Your task to perform on an android device: open app "Messenger Lite" (install if not already installed), go to login, and select forgot password Image 0: 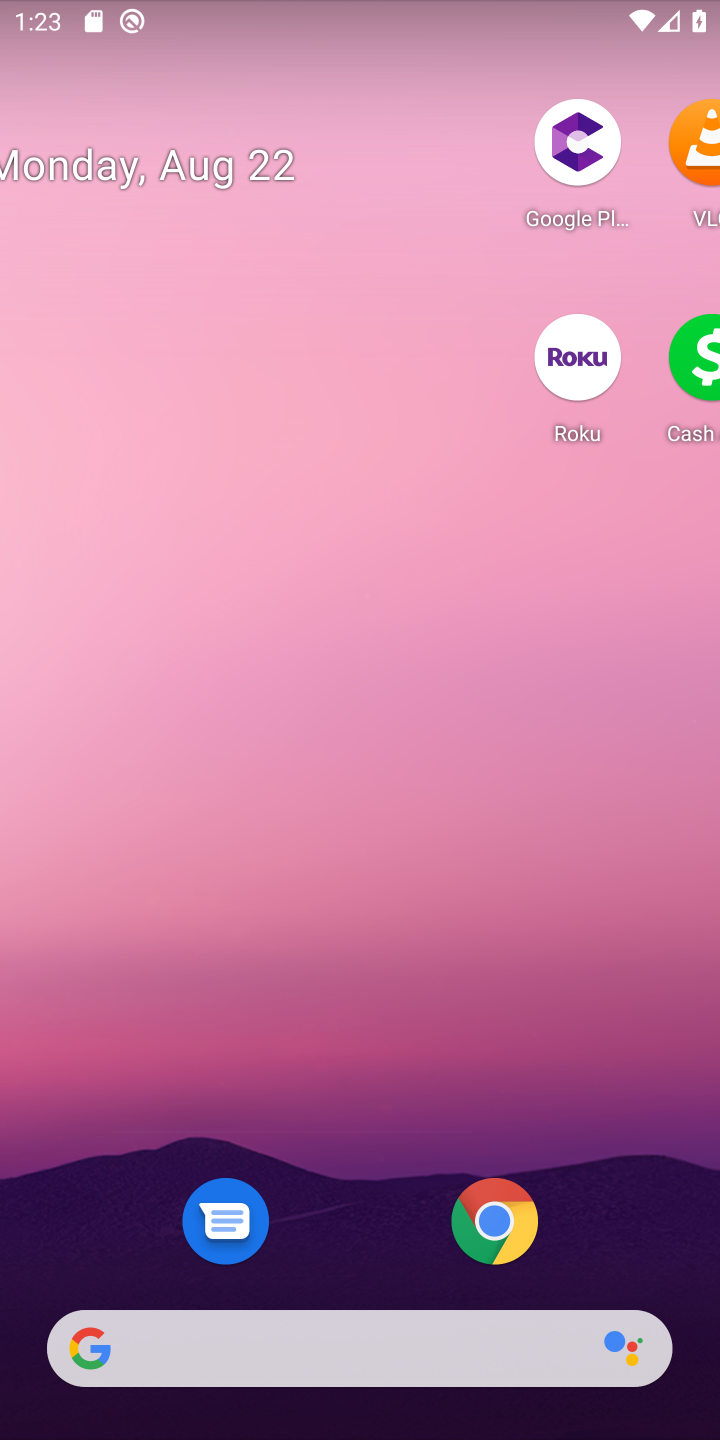
Step 0: press home button
Your task to perform on an android device: open app "Messenger Lite" (install if not already installed), go to login, and select forgot password Image 1: 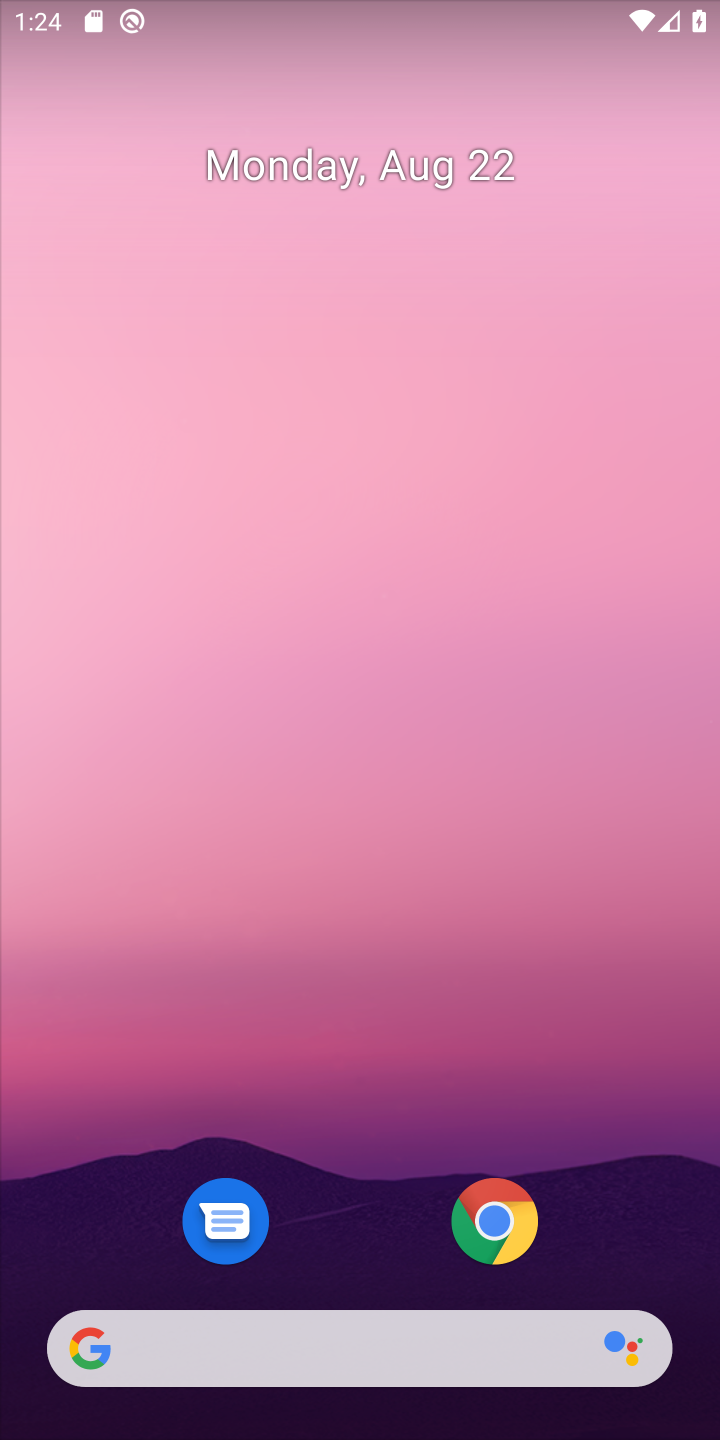
Step 1: drag from (359, 1273) to (422, 122)
Your task to perform on an android device: open app "Messenger Lite" (install if not already installed), go to login, and select forgot password Image 2: 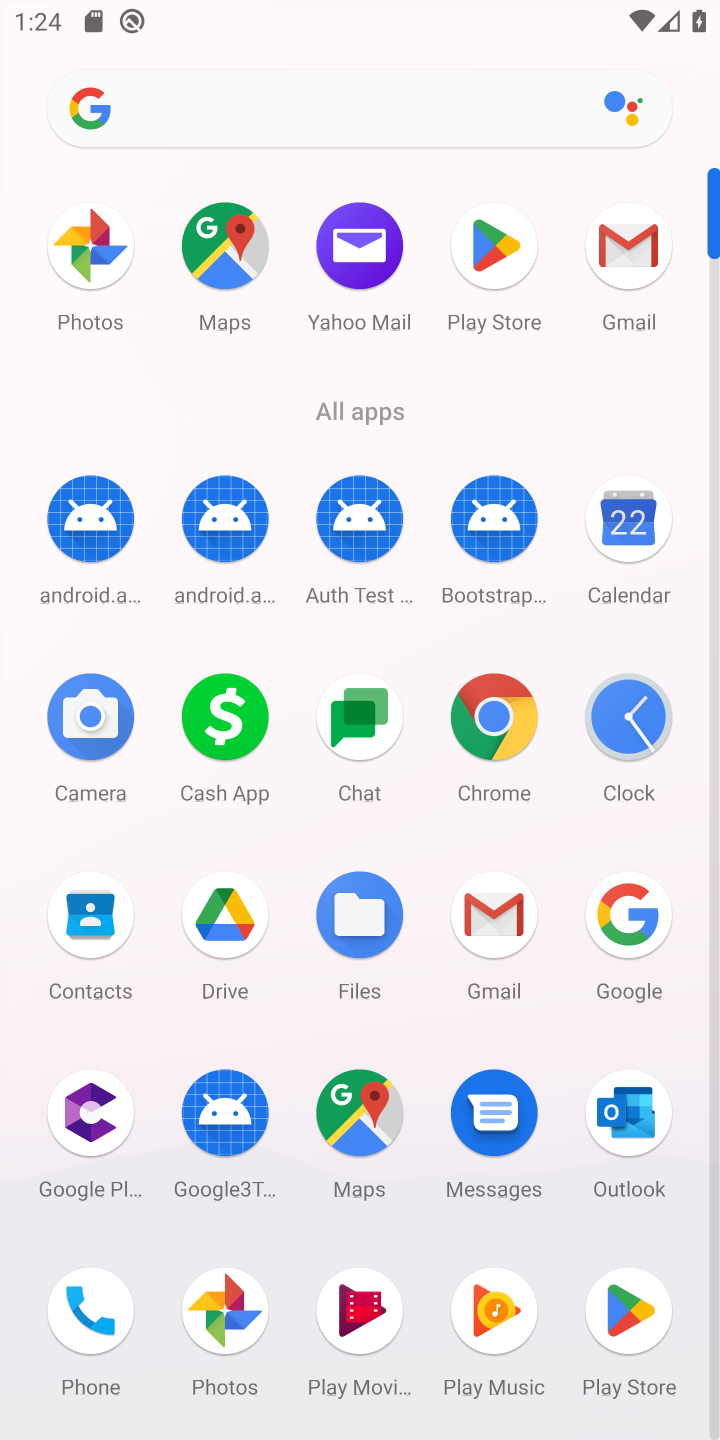
Step 2: click (487, 235)
Your task to perform on an android device: open app "Messenger Lite" (install if not already installed), go to login, and select forgot password Image 3: 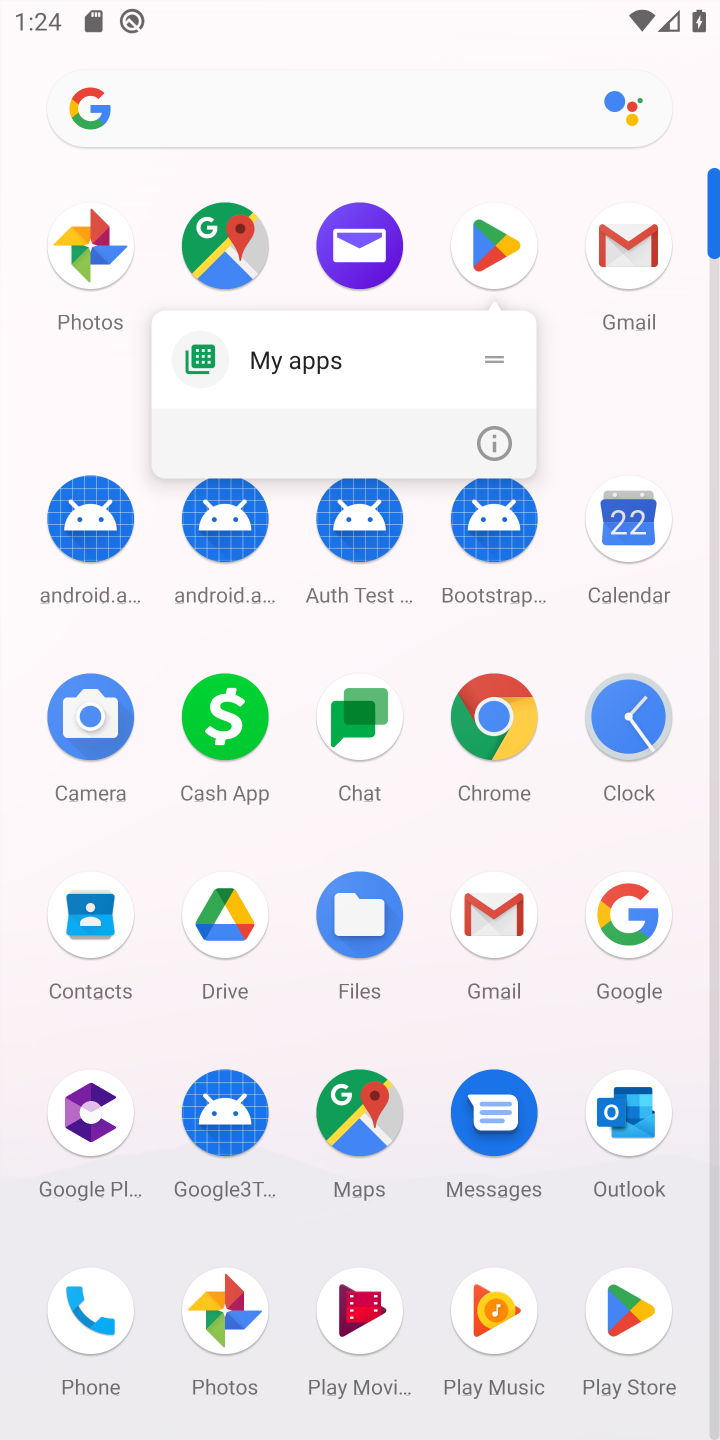
Step 3: click (493, 241)
Your task to perform on an android device: open app "Messenger Lite" (install if not already installed), go to login, and select forgot password Image 4: 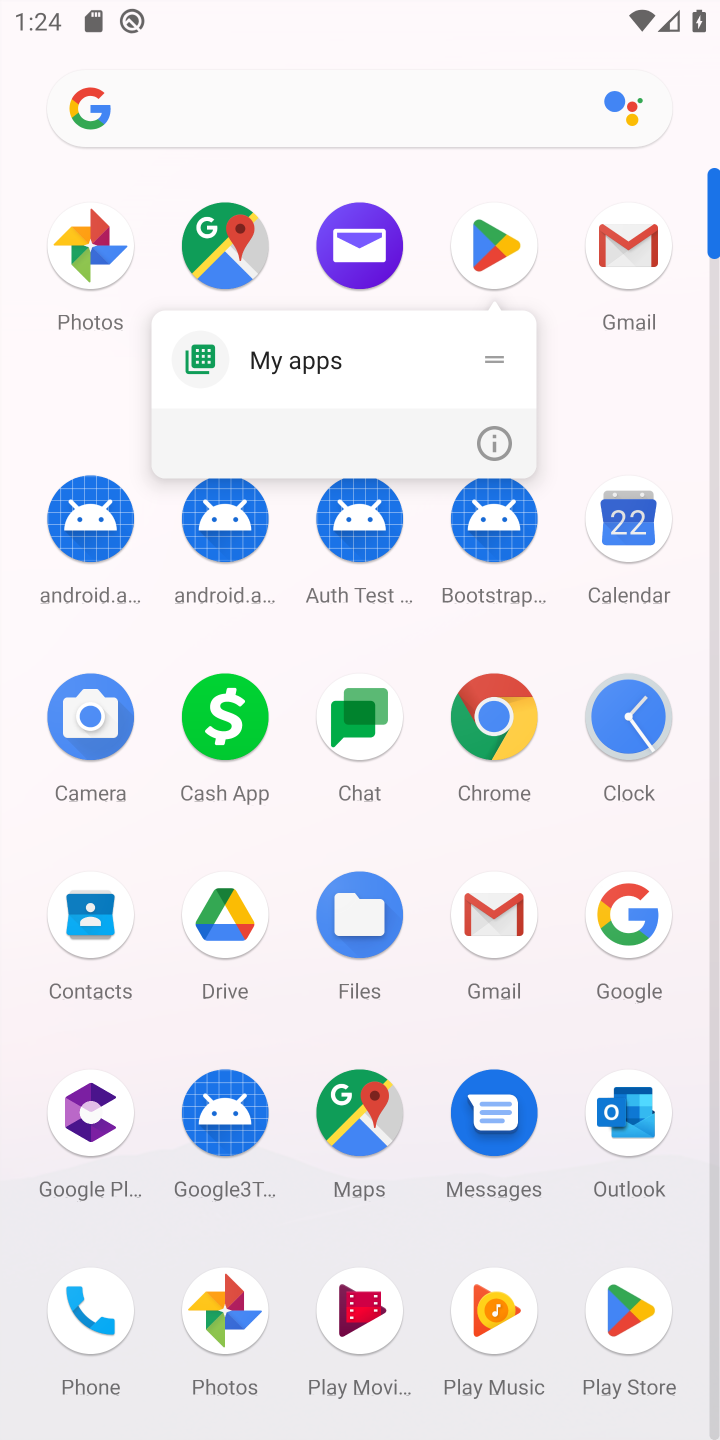
Step 4: click (489, 234)
Your task to perform on an android device: open app "Messenger Lite" (install if not already installed), go to login, and select forgot password Image 5: 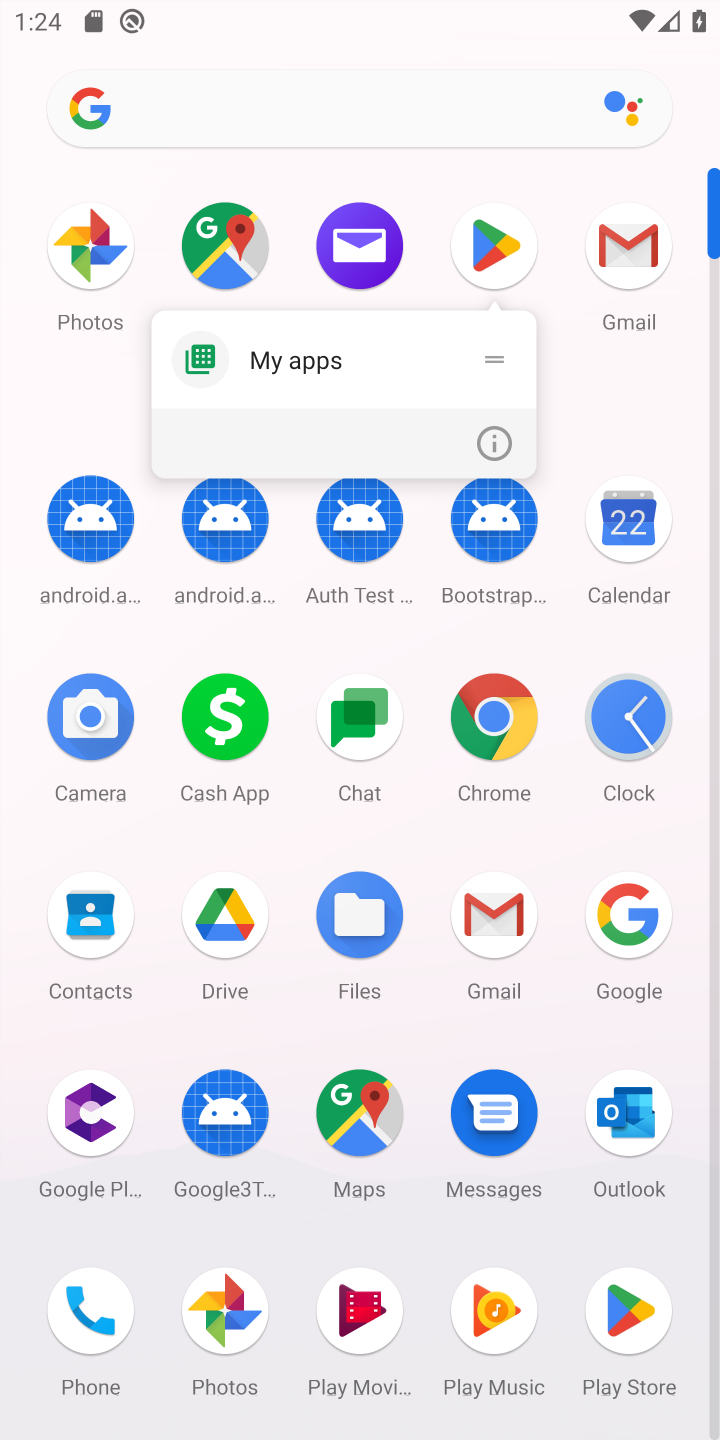
Step 5: click (489, 234)
Your task to perform on an android device: open app "Messenger Lite" (install if not already installed), go to login, and select forgot password Image 6: 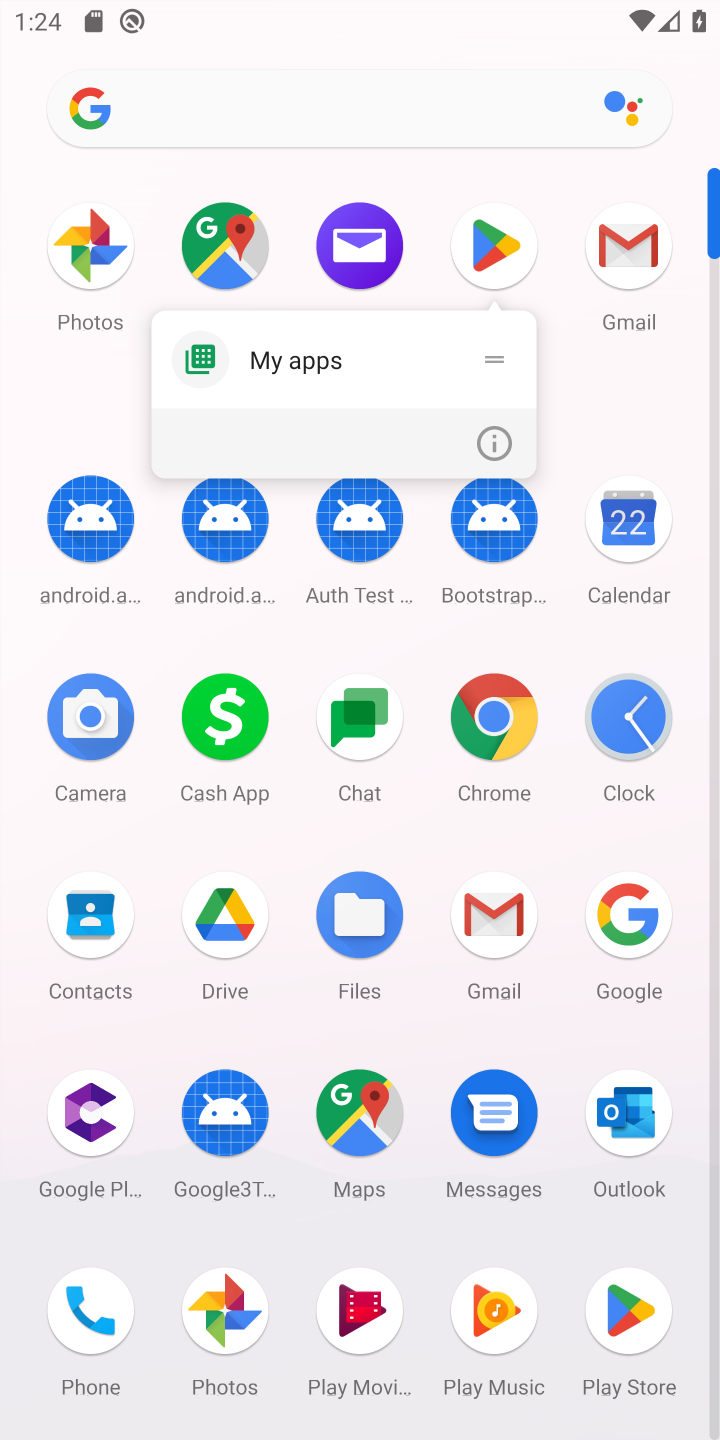
Step 6: click (630, 1293)
Your task to perform on an android device: open app "Messenger Lite" (install if not already installed), go to login, and select forgot password Image 7: 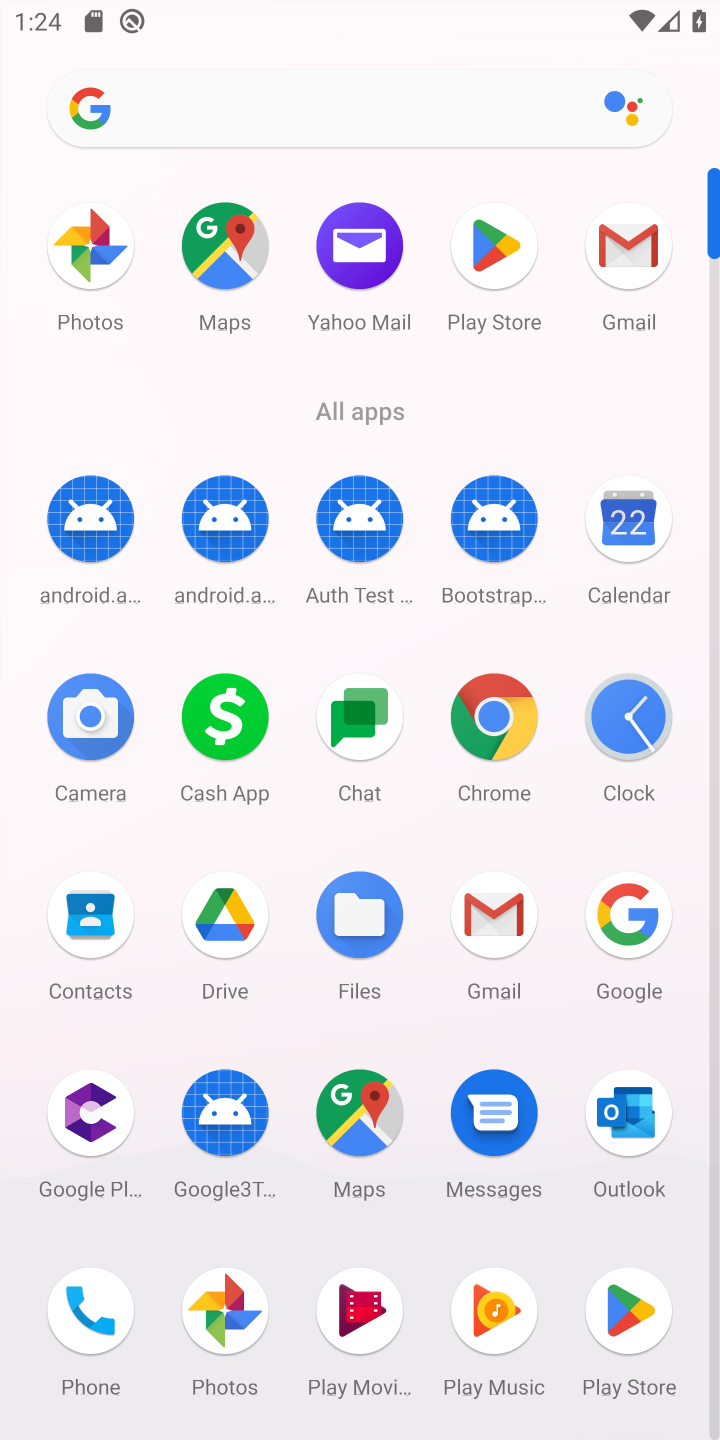
Step 7: click (619, 1298)
Your task to perform on an android device: open app "Messenger Lite" (install if not already installed), go to login, and select forgot password Image 8: 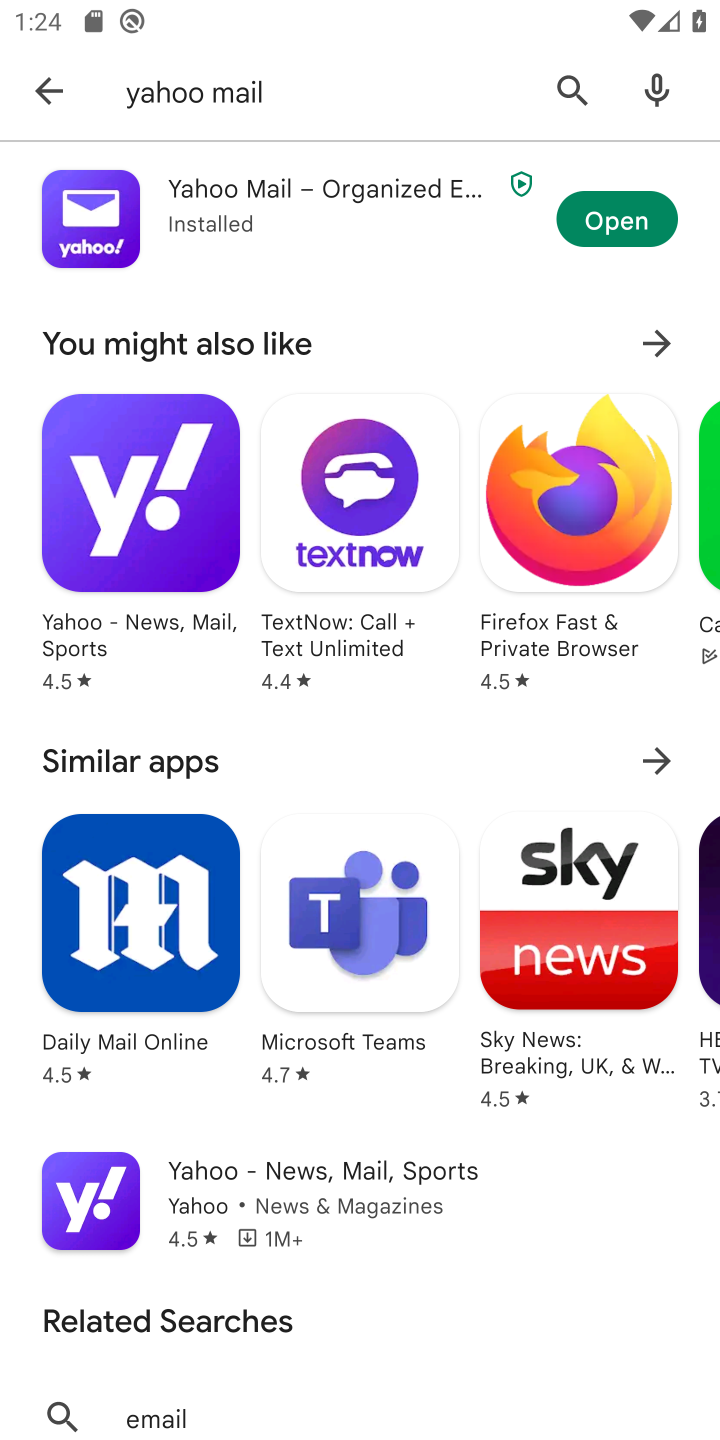
Step 8: click (564, 76)
Your task to perform on an android device: open app "Messenger Lite" (install if not already installed), go to login, and select forgot password Image 9: 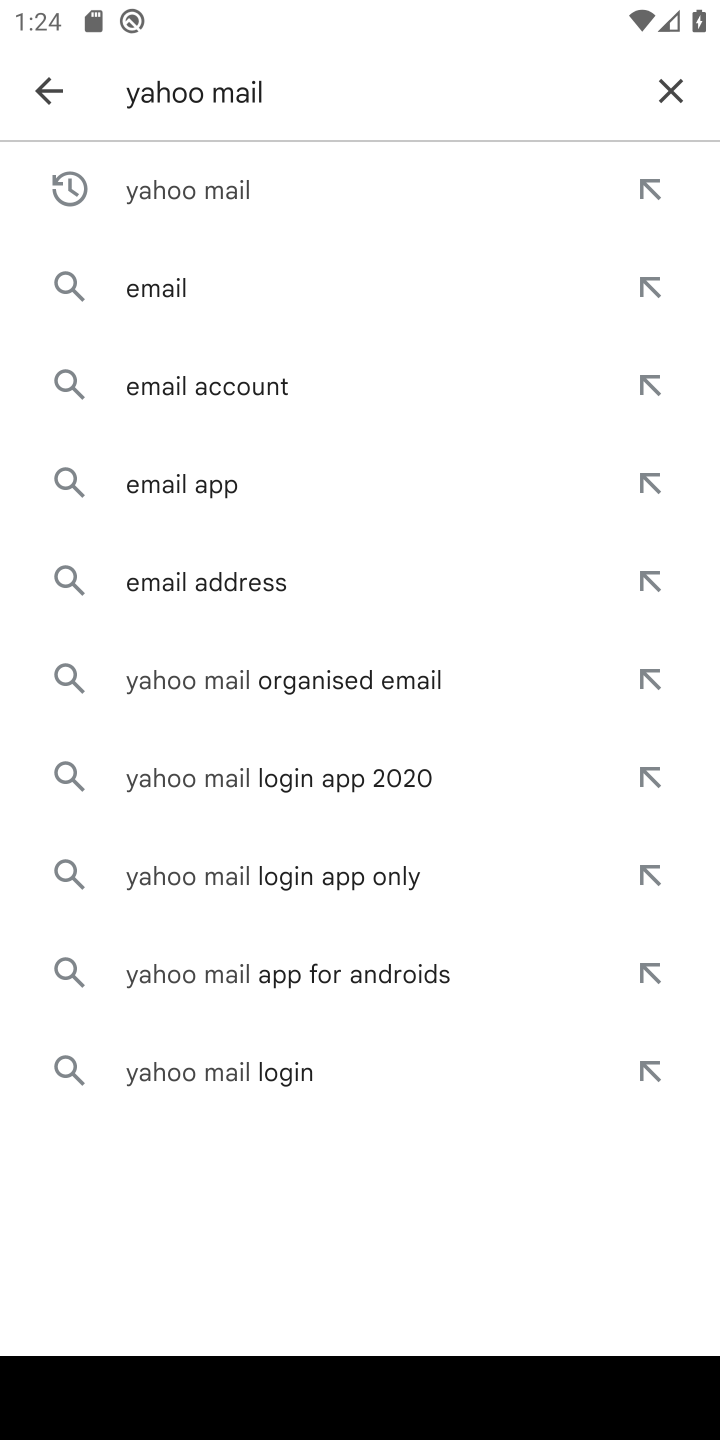
Step 9: click (669, 90)
Your task to perform on an android device: open app "Messenger Lite" (install if not already installed), go to login, and select forgot password Image 10: 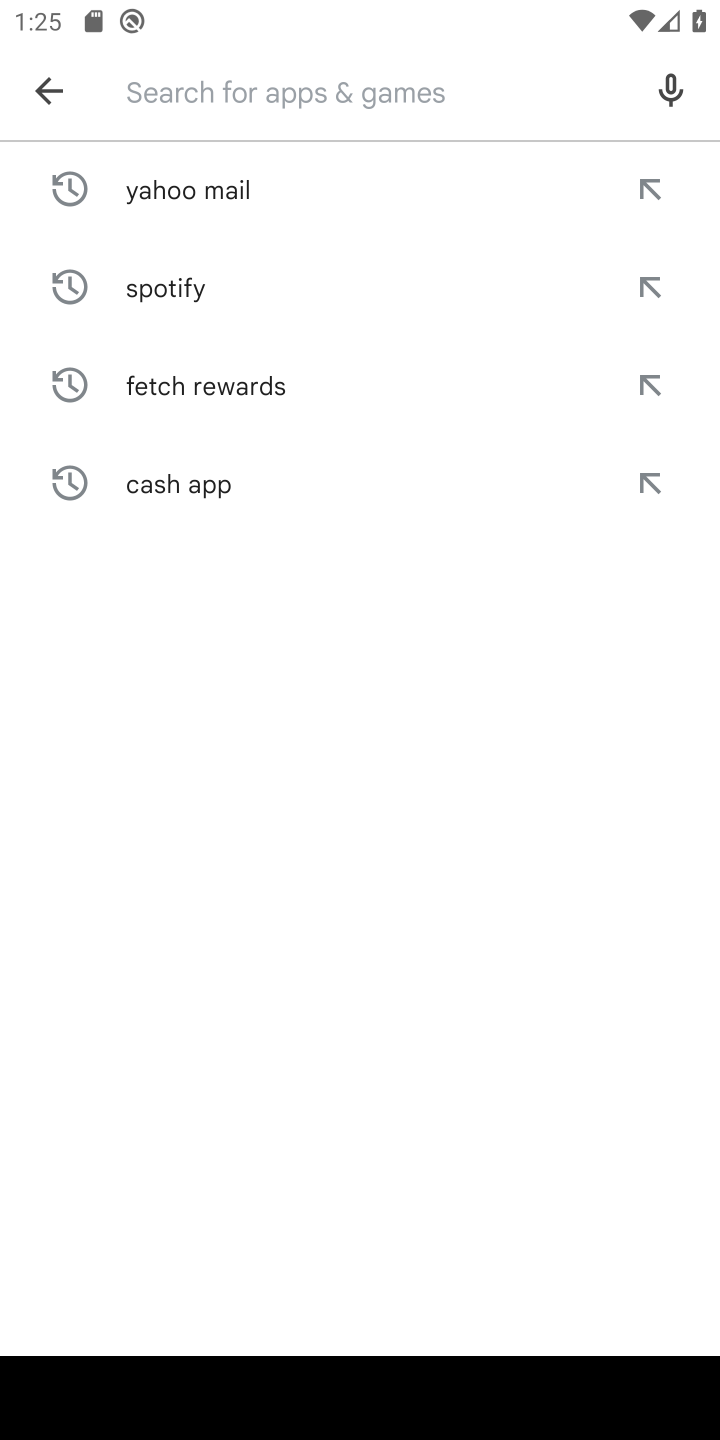
Step 10: type "Messenger Lite"
Your task to perform on an android device: open app "Messenger Lite" (install if not already installed), go to login, and select forgot password Image 11: 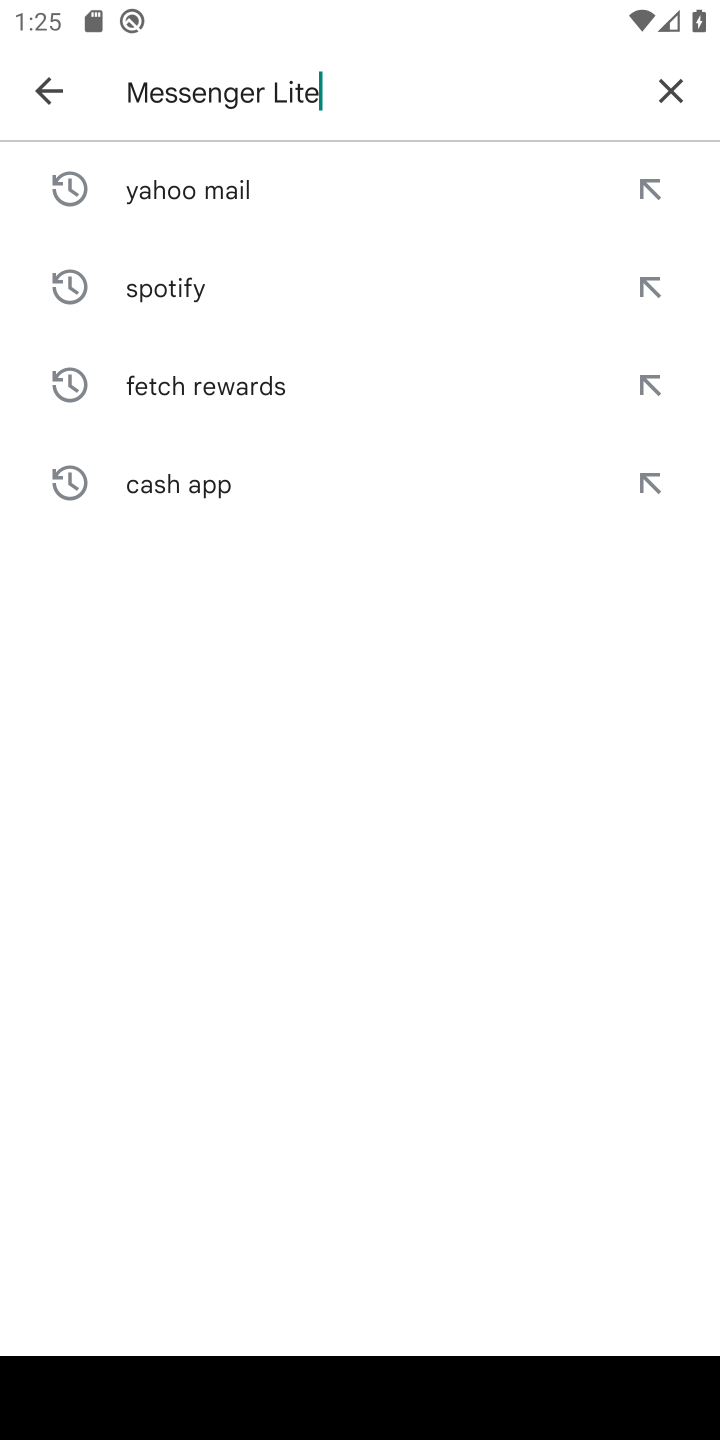
Step 11: type ""
Your task to perform on an android device: open app "Messenger Lite" (install if not already installed), go to login, and select forgot password Image 12: 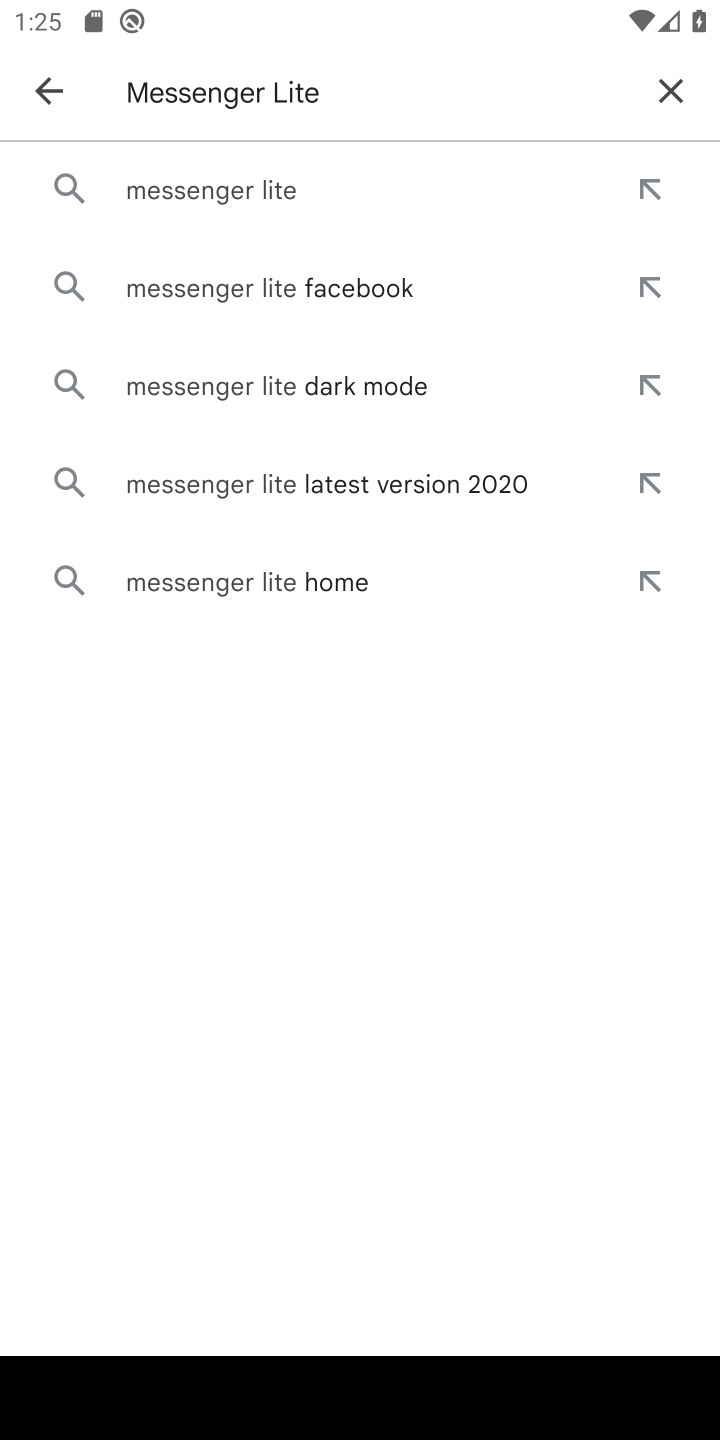
Step 12: click (313, 186)
Your task to perform on an android device: open app "Messenger Lite" (install if not already installed), go to login, and select forgot password Image 13: 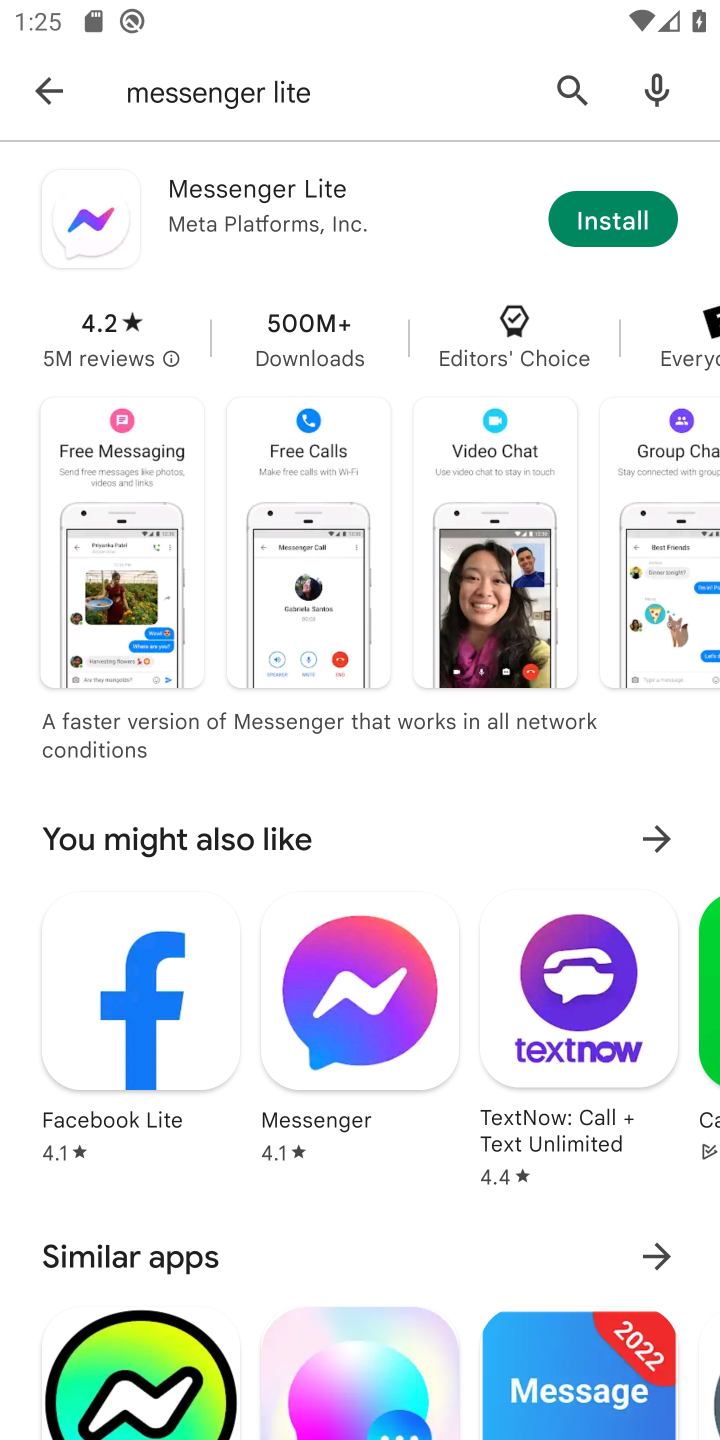
Step 13: click (610, 219)
Your task to perform on an android device: open app "Messenger Lite" (install if not already installed), go to login, and select forgot password Image 14: 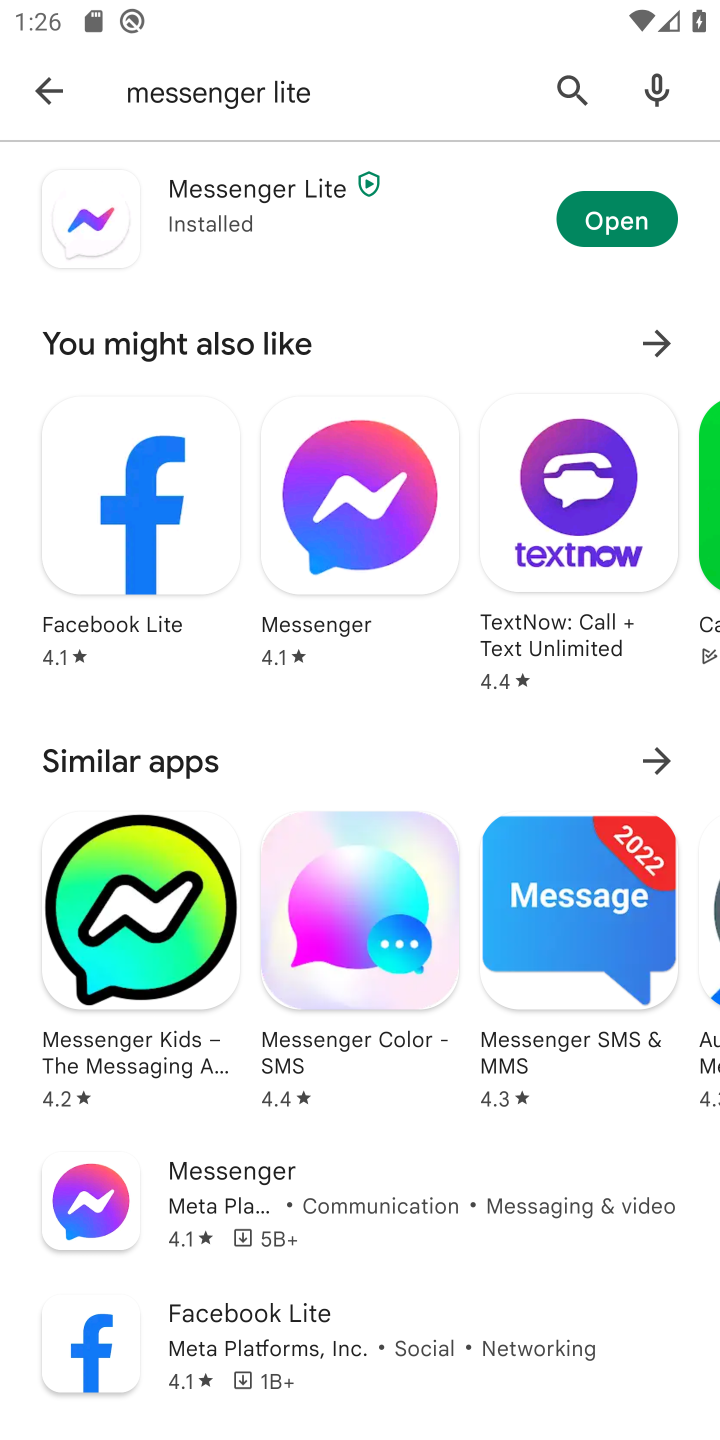
Step 14: click (615, 212)
Your task to perform on an android device: open app "Messenger Lite" (install if not already installed), go to login, and select forgot password Image 15: 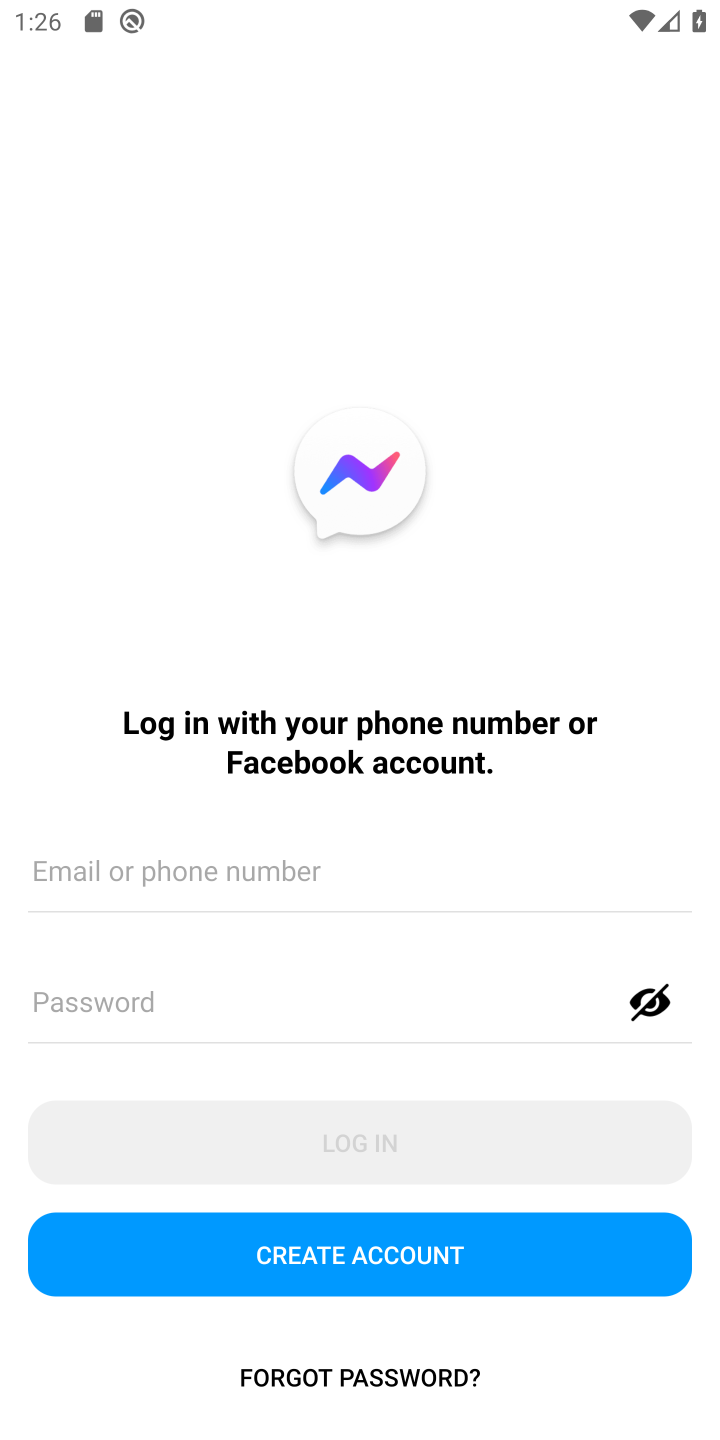
Step 15: click (387, 1374)
Your task to perform on an android device: open app "Messenger Lite" (install if not already installed), go to login, and select forgot password Image 16: 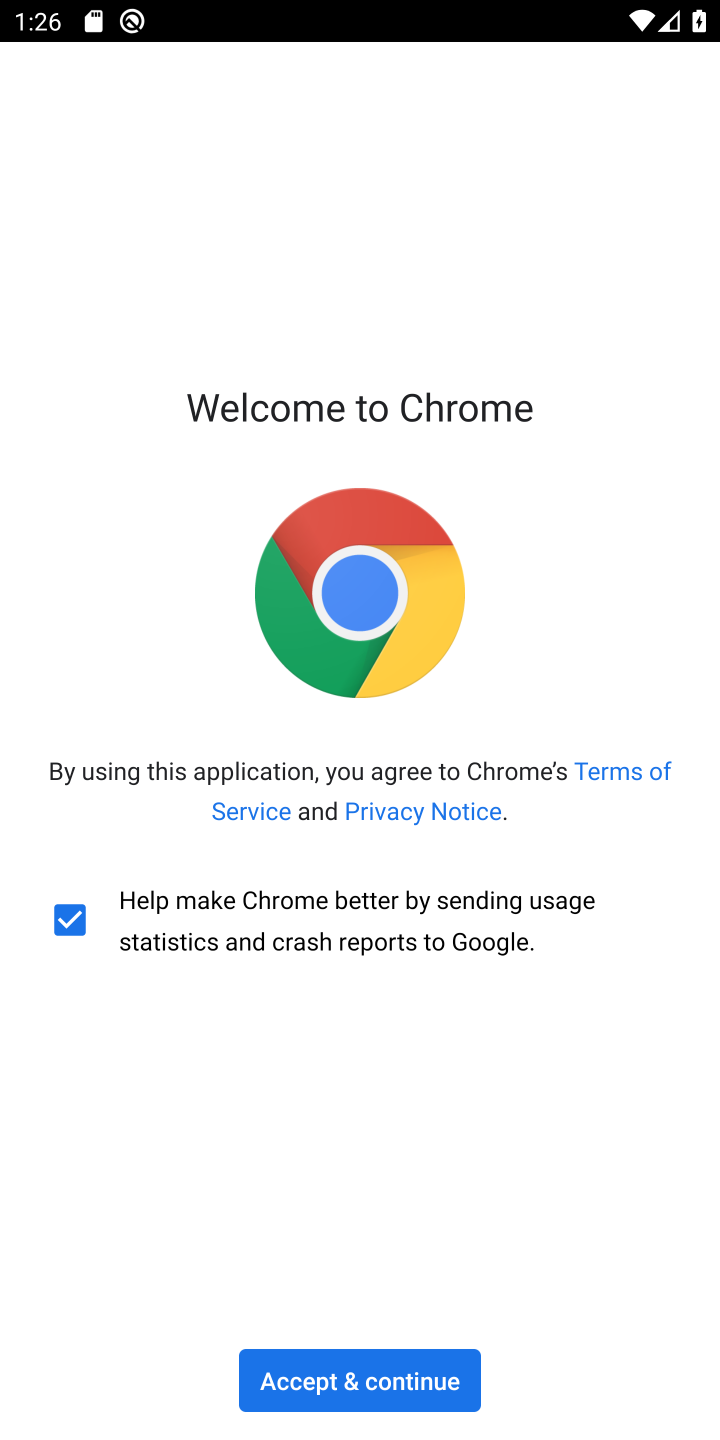
Step 16: click (387, 1374)
Your task to perform on an android device: open app "Messenger Lite" (install if not already installed), go to login, and select forgot password Image 17: 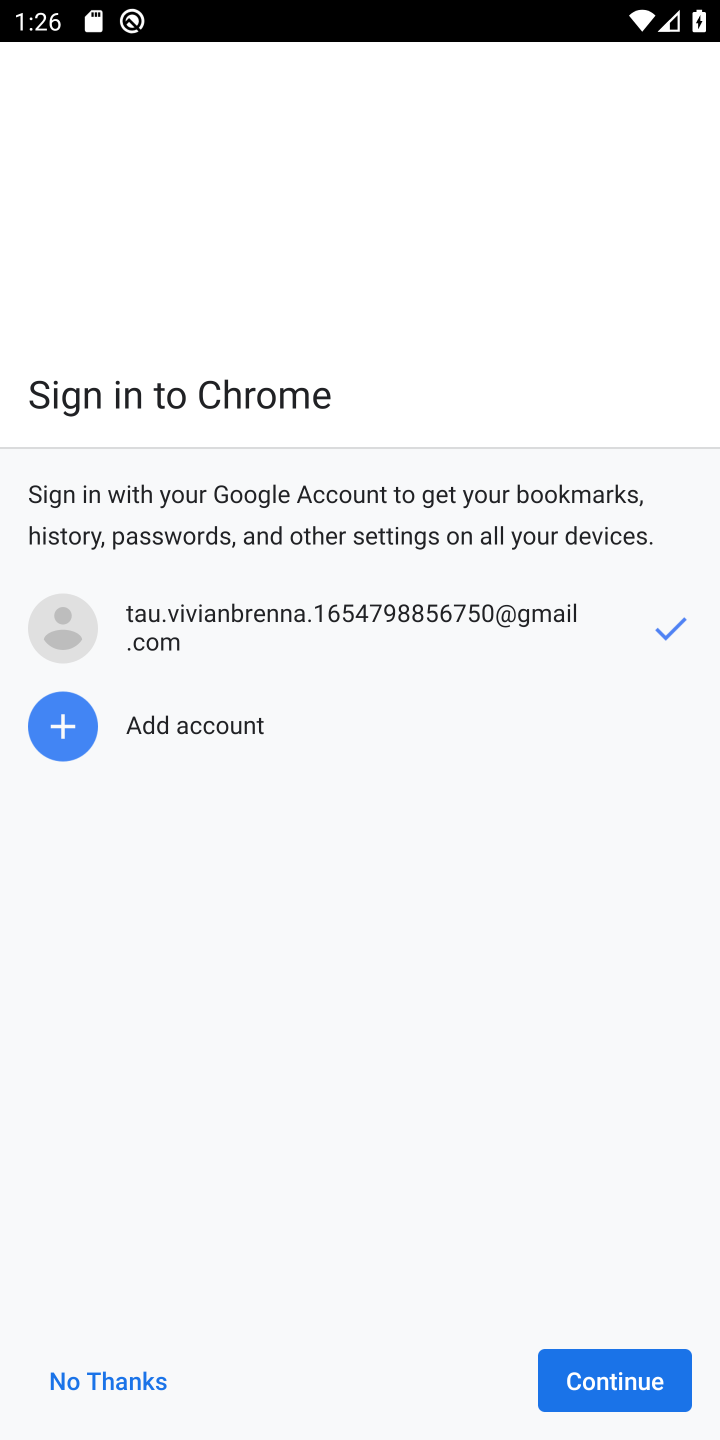
Step 17: click (636, 1379)
Your task to perform on an android device: open app "Messenger Lite" (install if not already installed), go to login, and select forgot password Image 18: 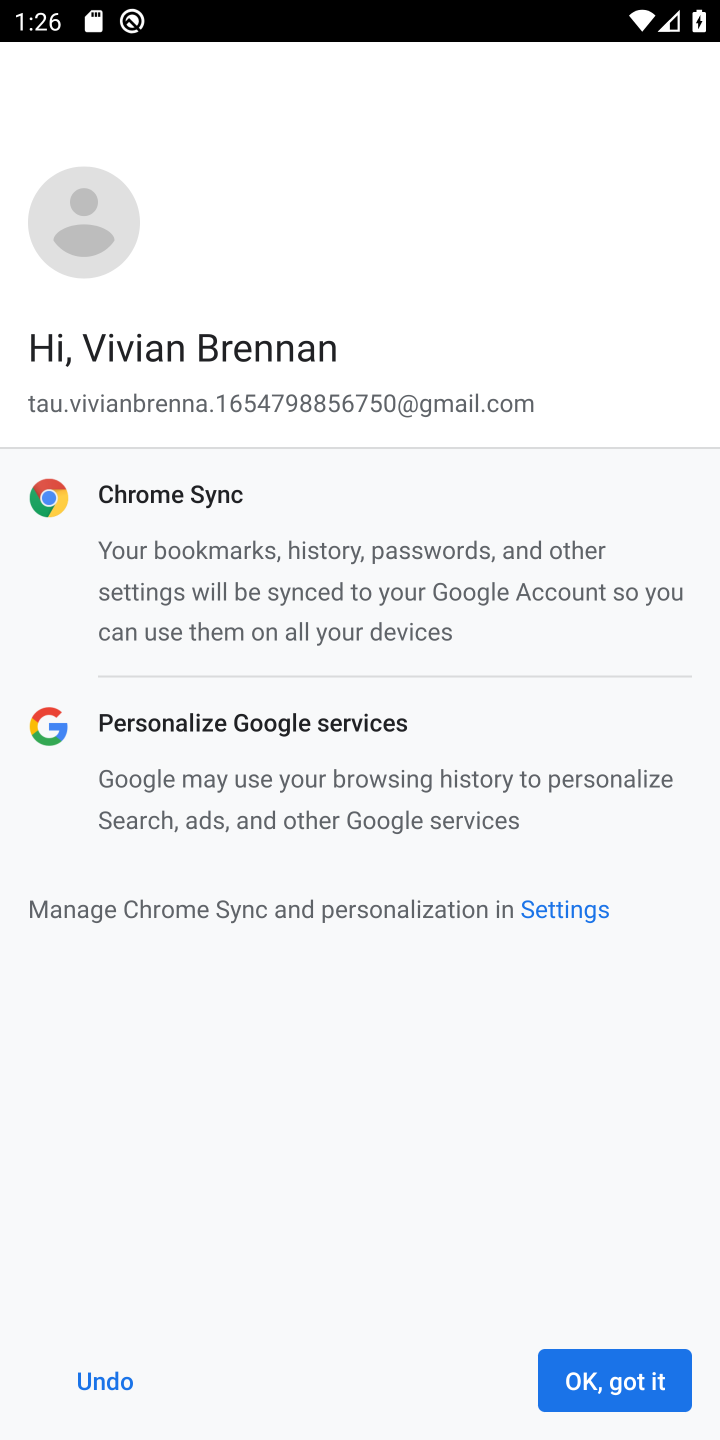
Step 18: click (636, 1379)
Your task to perform on an android device: open app "Messenger Lite" (install if not already installed), go to login, and select forgot password Image 19: 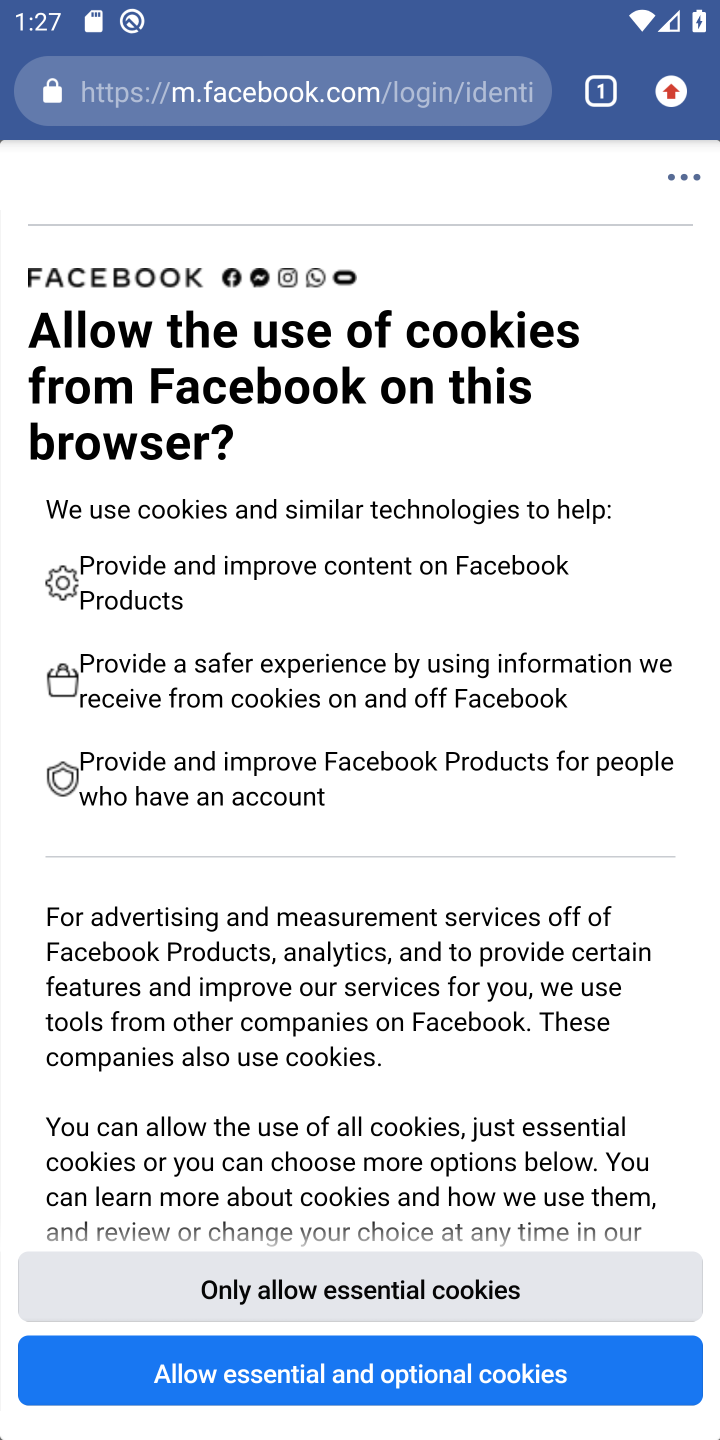
Step 19: task complete